Your task to perform on an android device: Go to battery settings Image 0: 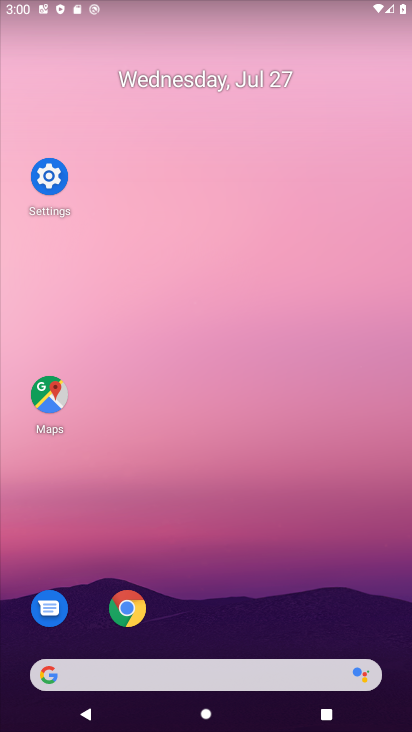
Step 0: click (56, 173)
Your task to perform on an android device: Go to battery settings Image 1: 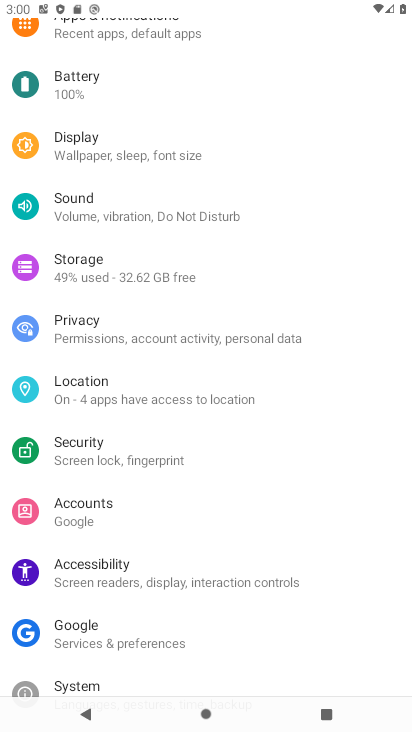
Step 1: click (203, 83)
Your task to perform on an android device: Go to battery settings Image 2: 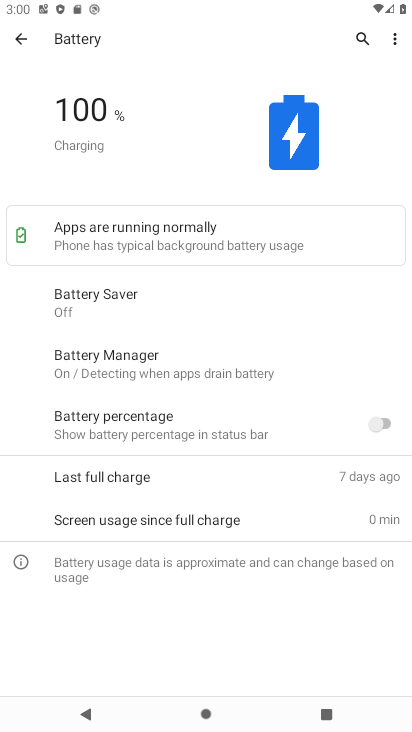
Step 2: task complete